Your task to perform on an android device: turn off data saver in the chrome app Image 0: 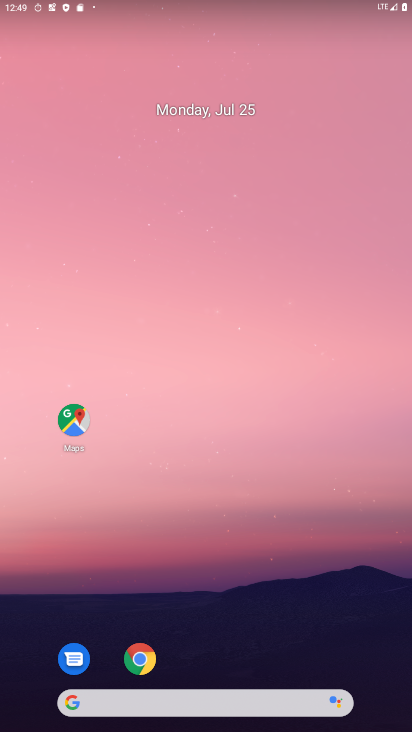
Step 0: click (73, 433)
Your task to perform on an android device: turn off data saver in the chrome app Image 1: 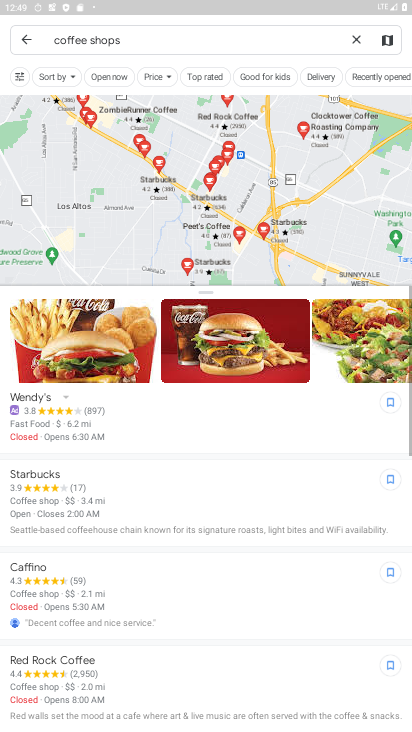
Step 1: press home button
Your task to perform on an android device: turn off data saver in the chrome app Image 2: 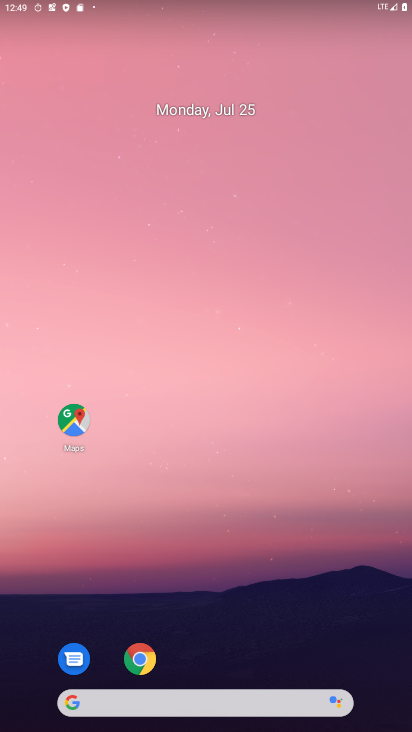
Step 2: click (128, 656)
Your task to perform on an android device: turn off data saver in the chrome app Image 3: 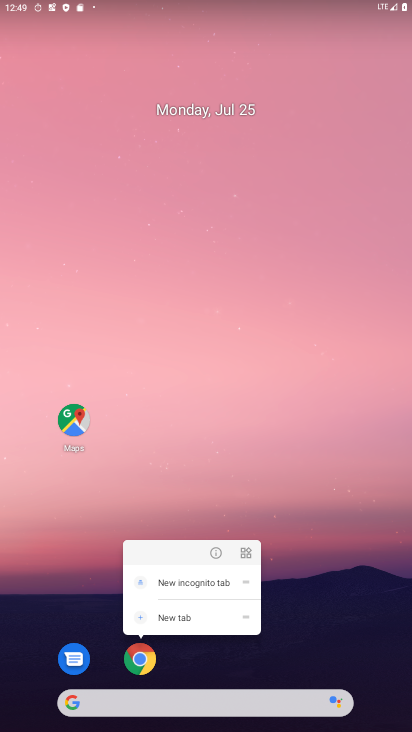
Step 3: click (139, 664)
Your task to perform on an android device: turn off data saver in the chrome app Image 4: 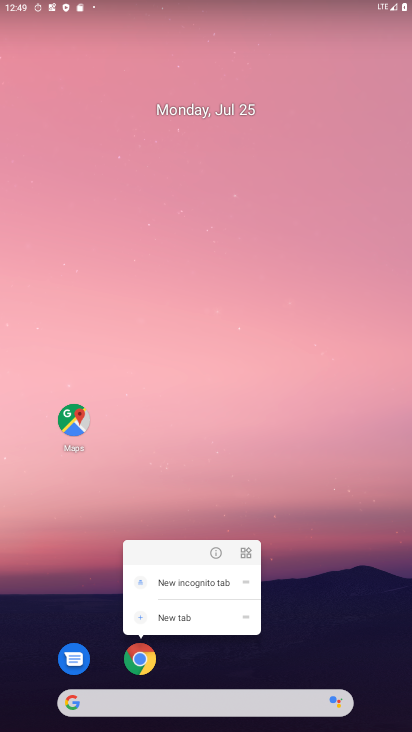
Step 4: click (140, 663)
Your task to perform on an android device: turn off data saver in the chrome app Image 5: 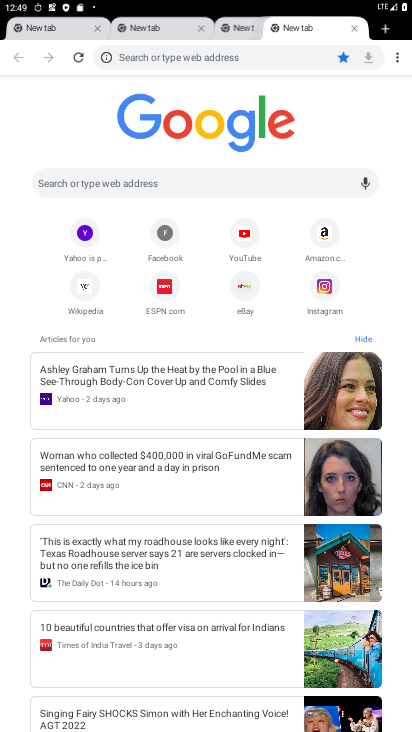
Step 5: click (396, 67)
Your task to perform on an android device: turn off data saver in the chrome app Image 6: 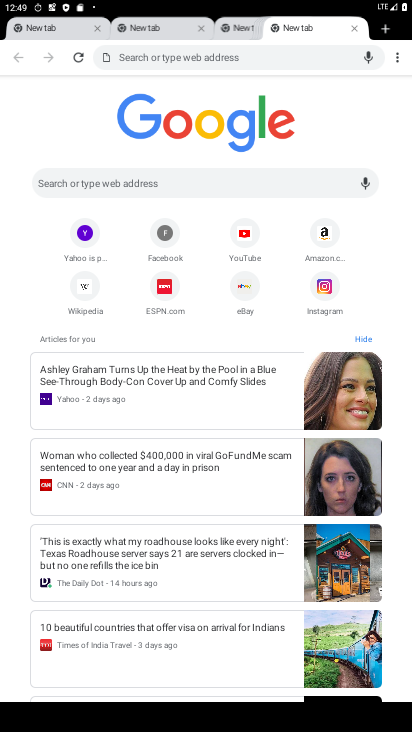
Step 6: task complete